Your task to perform on an android device: open app "Paramount+ | Peak Streaming" (install if not already installed) Image 0: 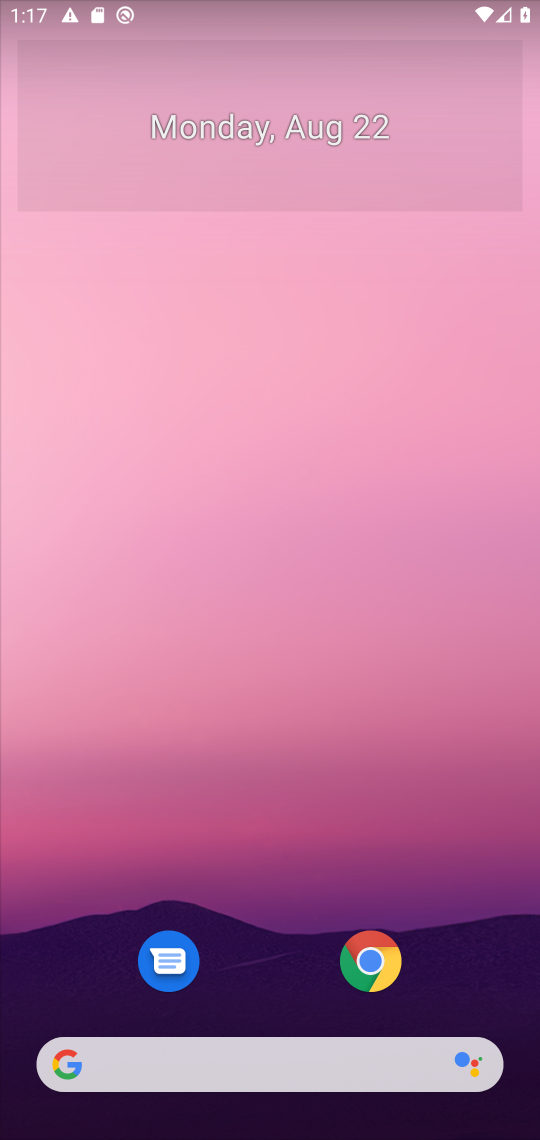
Step 0: press home button
Your task to perform on an android device: open app "Paramount+ | Peak Streaming" (install if not already installed) Image 1: 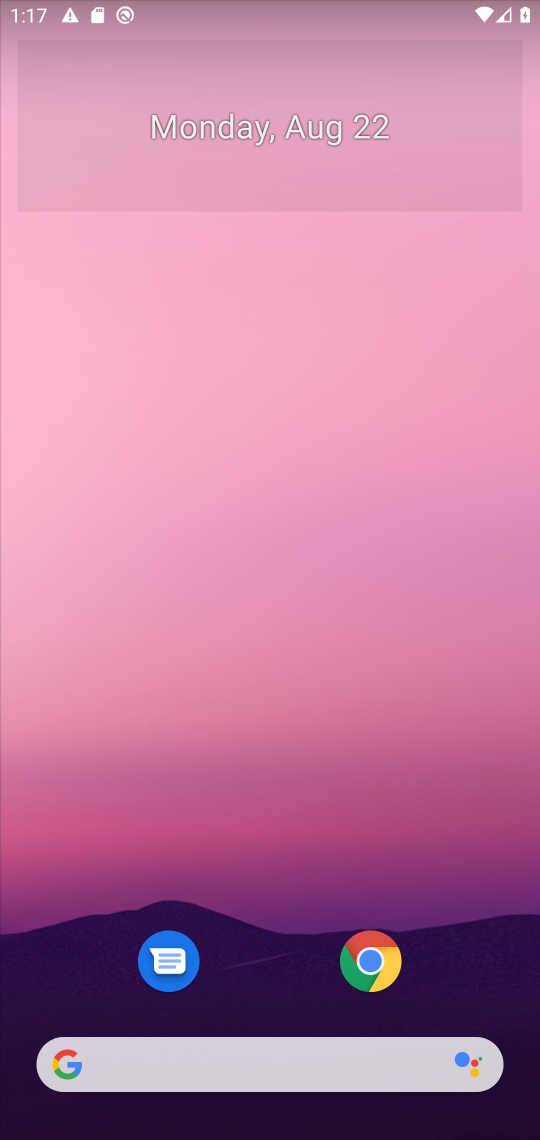
Step 1: drag from (466, 949) to (471, 80)
Your task to perform on an android device: open app "Paramount+ | Peak Streaming" (install if not already installed) Image 2: 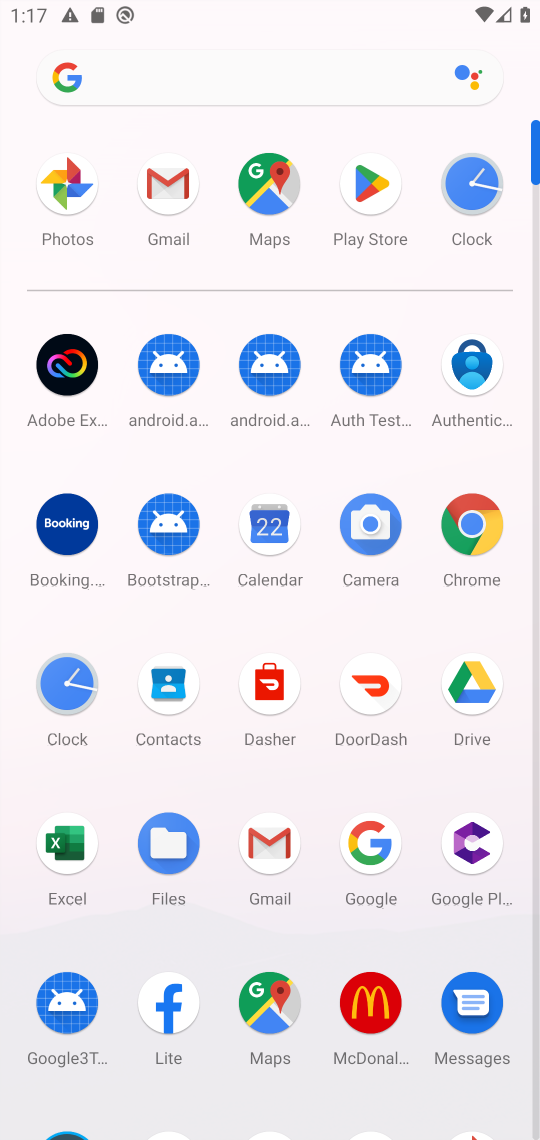
Step 2: click (454, 297)
Your task to perform on an android device: open app "Paramount+ | Peak Streaming" (install if not already installed) Image 3: 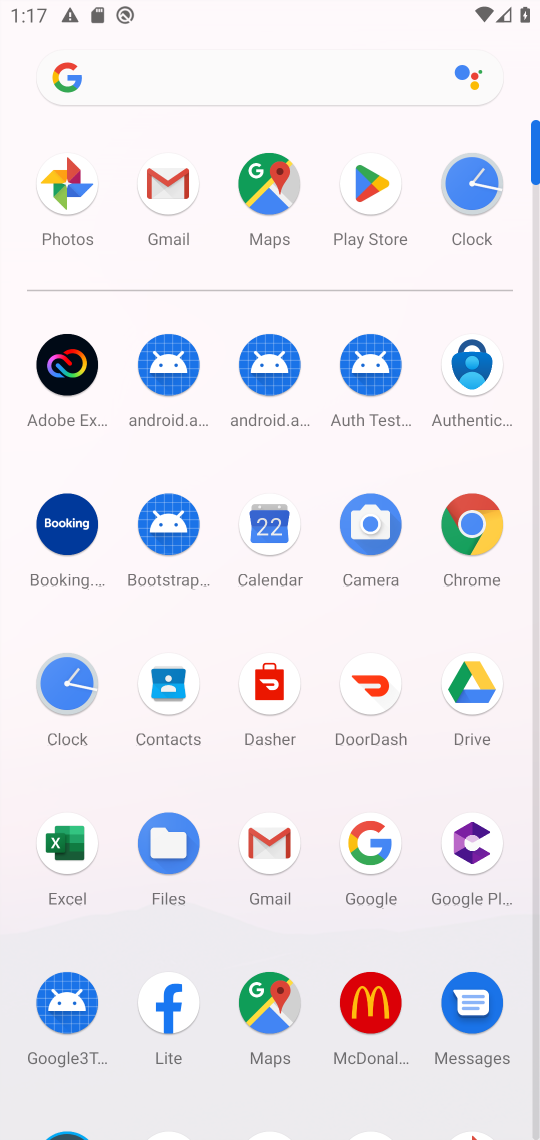
Step 3: click (373, 182)
Your task to perform on an android device: open app "Paramount+ | Peak Streaming" (install if not already installed) Image 4: 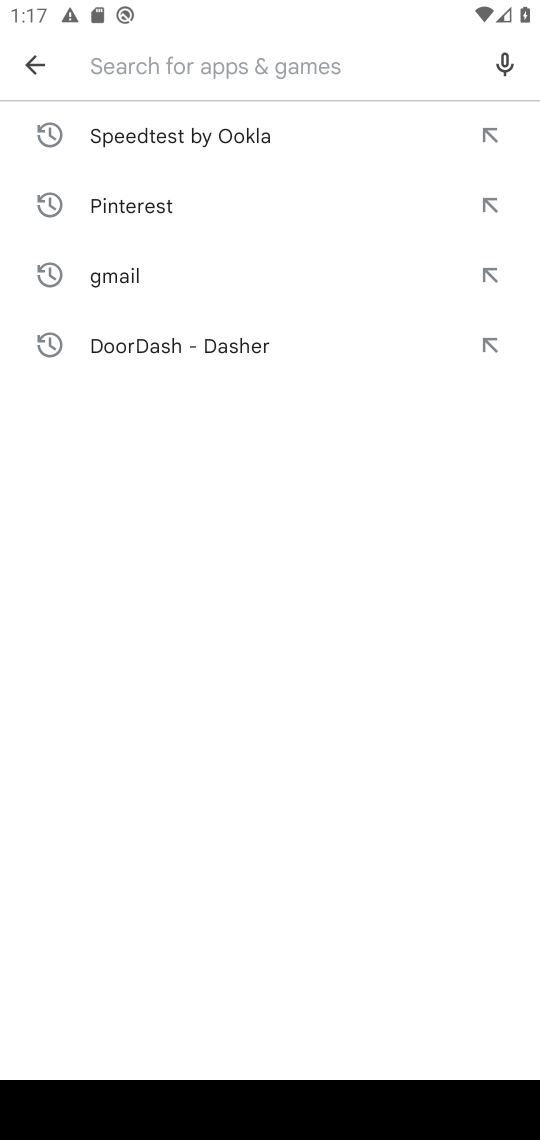
Step 4: press enter
Your task to perform on an android device: open app "Paramount+ | Peak Streaming" (install if not already installed) Image 5: 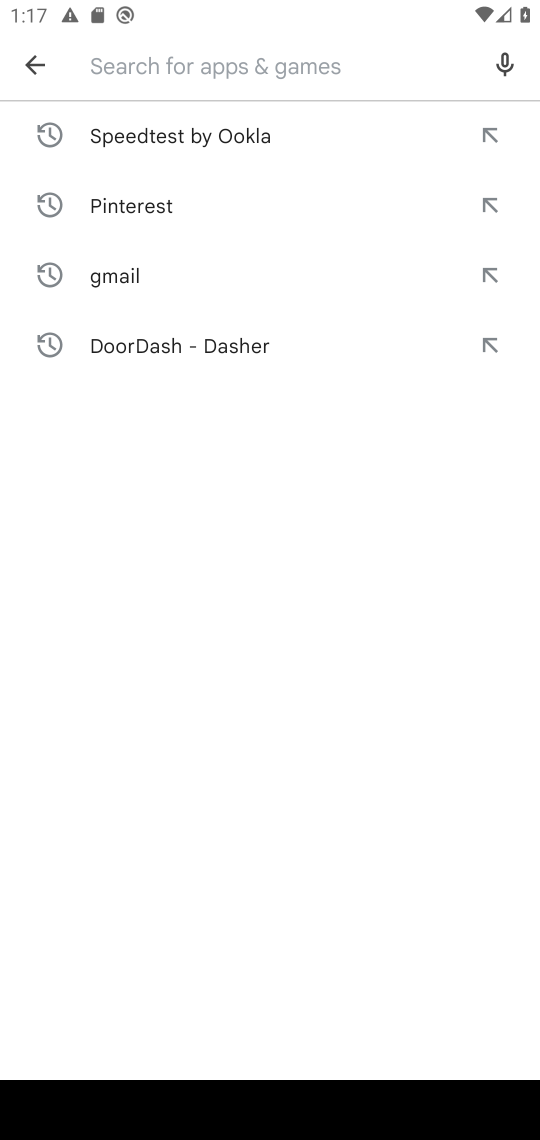
Step 5: type "Paramount+ | Peak Streaming"
Your task to perform on an android device: open app "Paramount+ | Peak Streaming" (install if not already installed) Image 6: 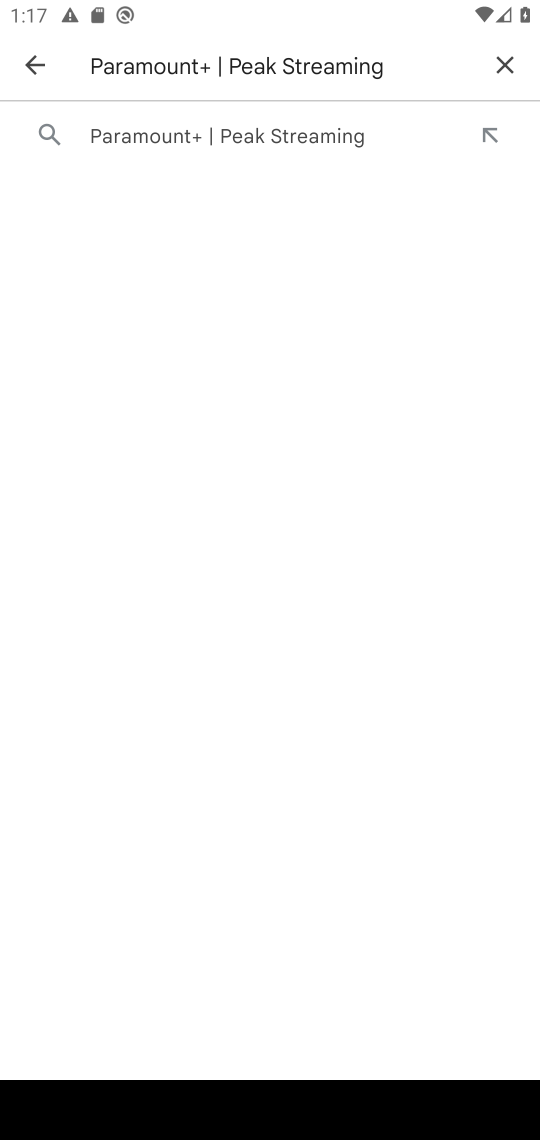
Step 6: click (309, 129)
Your task to perform on an android device: open app "Paramount+ | Peak Streaming" (install if not already installed) Image 7: 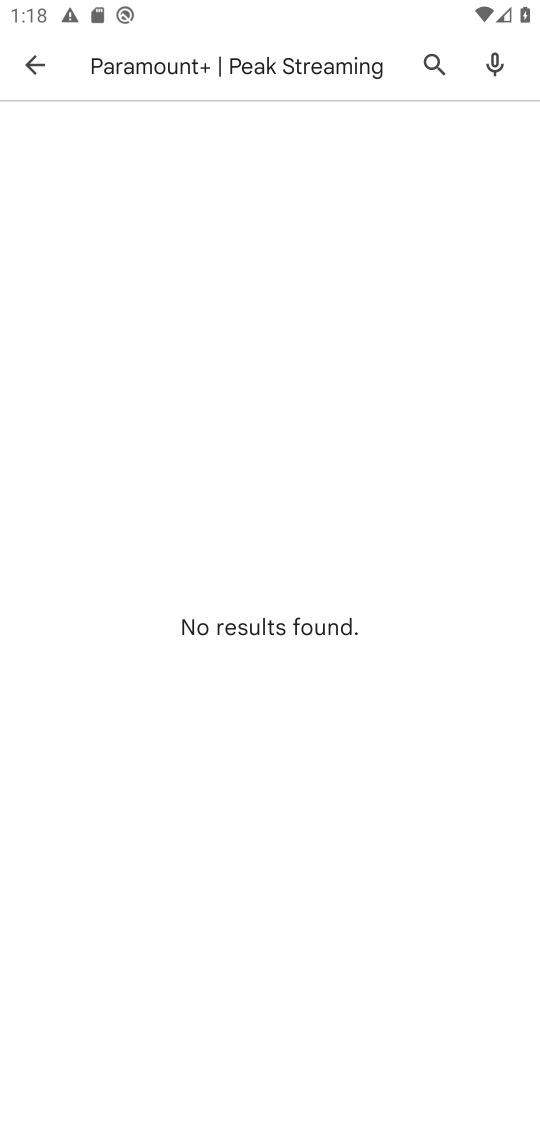
Step 7: task complete